Your task to perform on an android device: allow notifications from all sites in the chrome app Image 0: 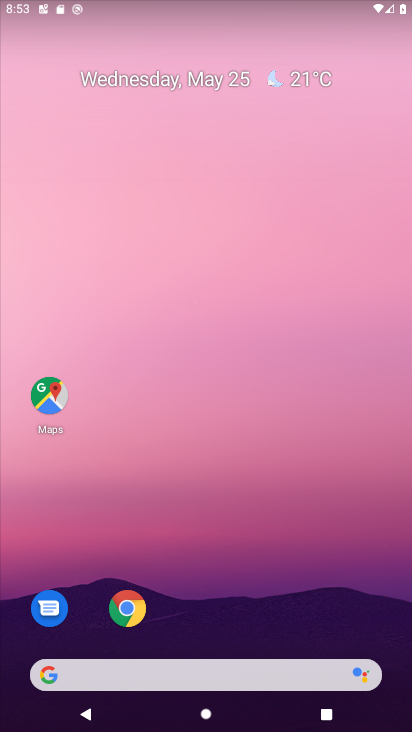
Step 0: click (128, 605)
Your task to perform on an android device: allow notifications from all sites in the chrome app Image 1: 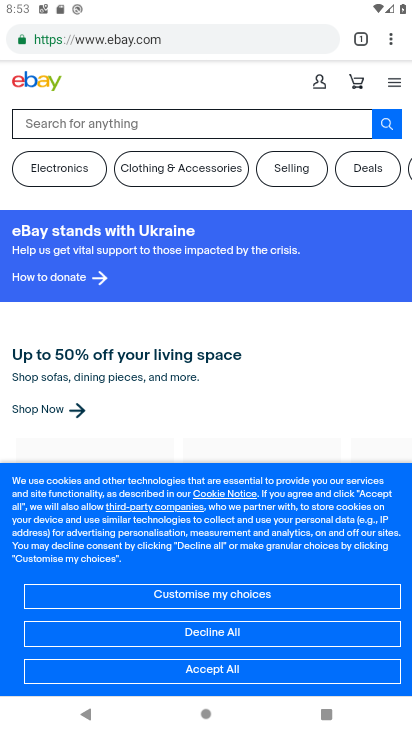
Step 1: click (392, 44)
Your task to perform on an android device: allow notifications from all sites in the chrome app Image 2: 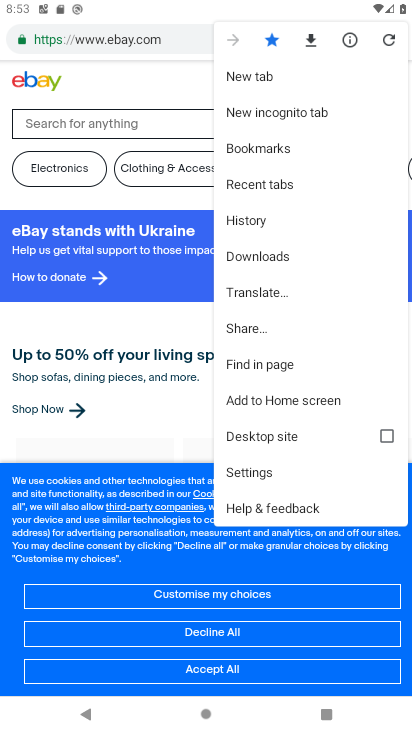
Step 2: click (256, 468)
Your task to perform on an android device: allow notifications from all sites in the chrome app Image 3: 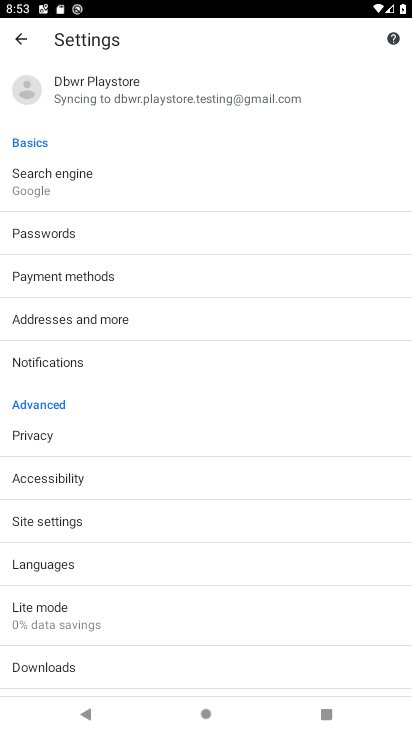
Step 3: click (53, 515)
Your task to perform on an android device: allow notifications from all sites in the chrome app Image 4: 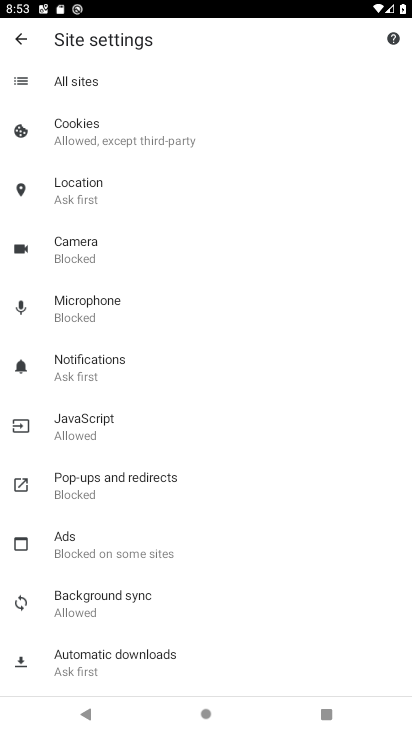
Step 4: click (83, 366)
Your task to perform on an android device: allow notifications from all sites in the chrome app Image 5: 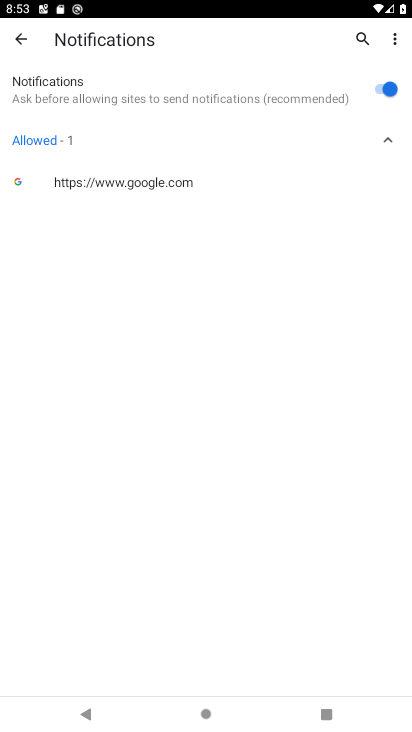
Step 5: click (20, 37)
Your task to perform on an android device: allow notifications from all sites in the chrome app Image 6: 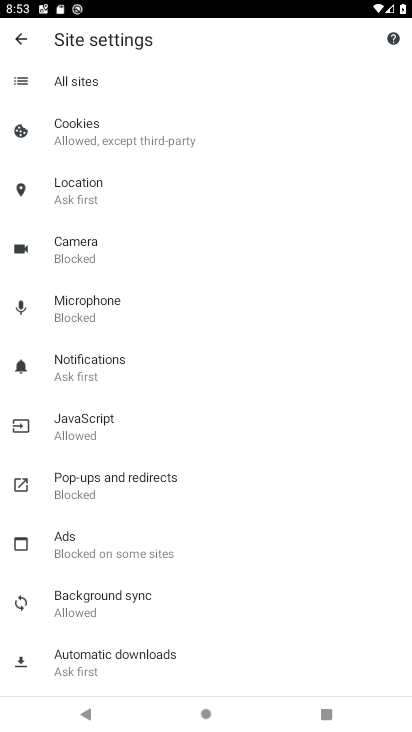
Step 6: task complete